Your task to perform on an android device: change the clock display to show seconds Image 0: 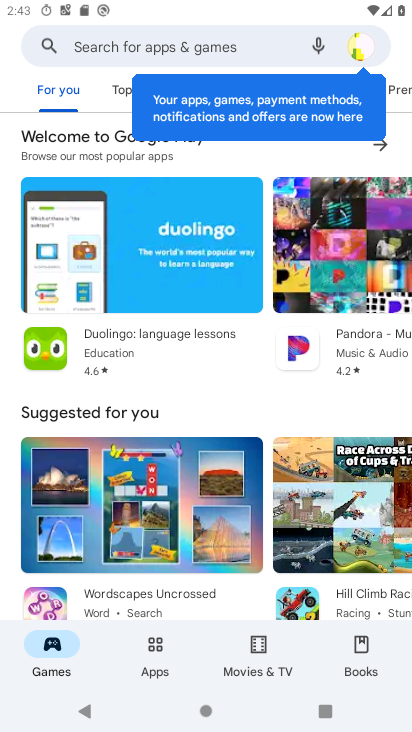
Step 0: press home button
Your task to perform on an android device: change the clock display to show seconds Image 1: 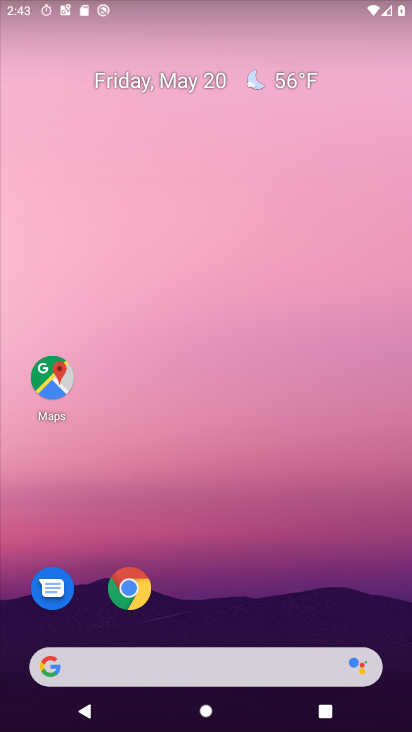
Step 1: drag from (44, 604) to (358, 207)
Your task to perform on an android device: change the clock display to show seconds Image 2: 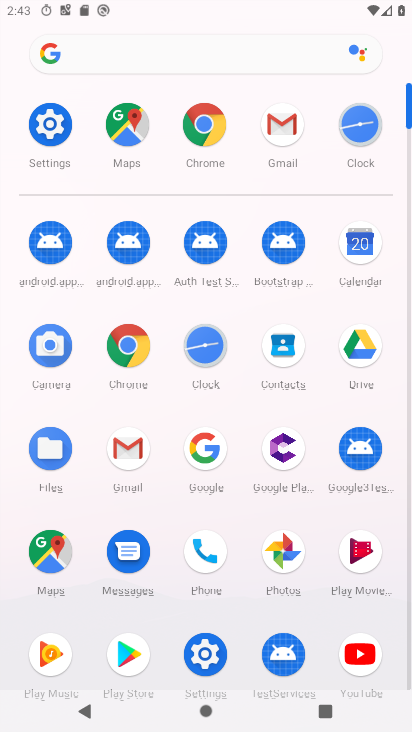
Step 2: click (366, 142)
Your task to perform on an android device: change the clock display to show seconds Image 3: 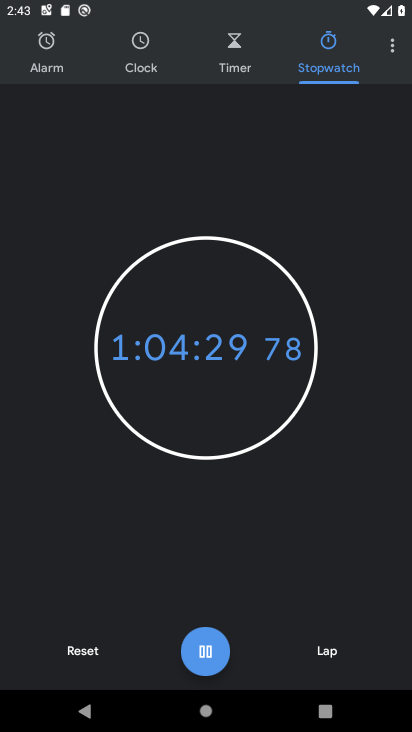
Step 3: click (386, 44)
Your task to perform on an android device: change the clock display to show seconds Image 4: 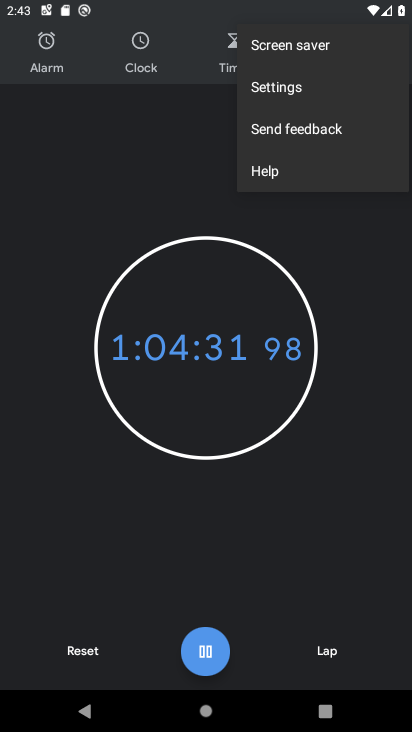
Step 4: click (292, 83)
Your task to perform on an android device: change the clock display to show seconds Image 5: 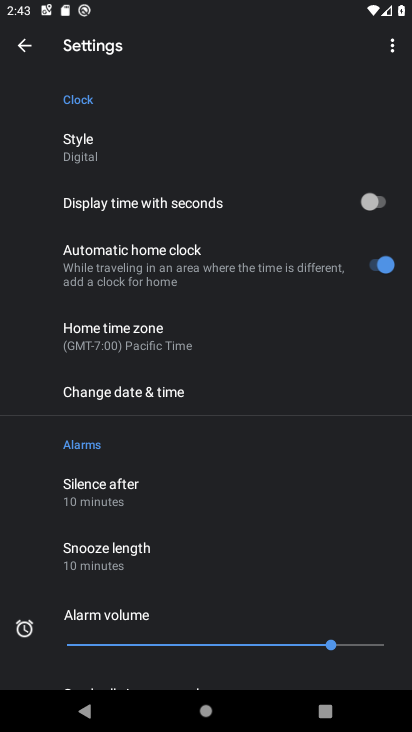
Step 5: click (375, 204)
Your task to perform on an android device: change the clock display to show seconds Image 6: 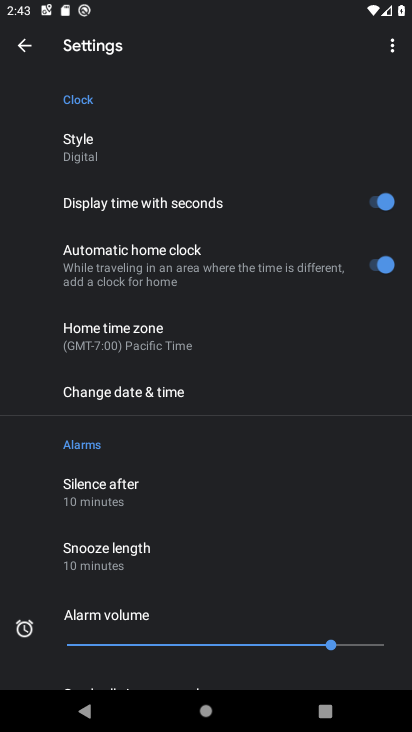
Step 6: task complete